Your task to perform on an android device: Open the Play Movies app and select the watchlist tab. Image 0: 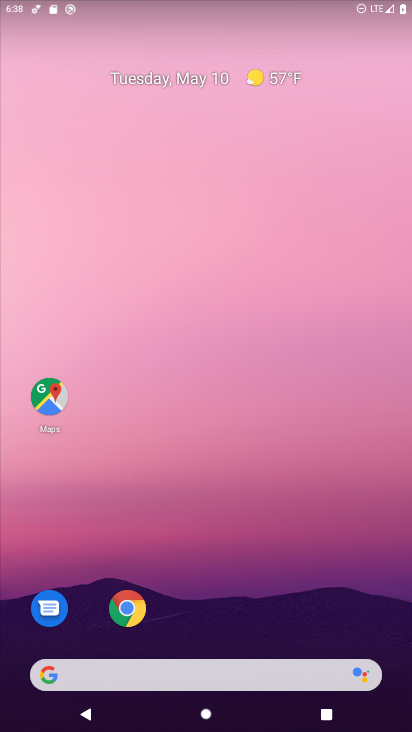
Step 0: drag from (346, 596) to (199, 36)
Your task to perform on an android device: Open the Play Movies app and select the watchlist tab. Image 1: 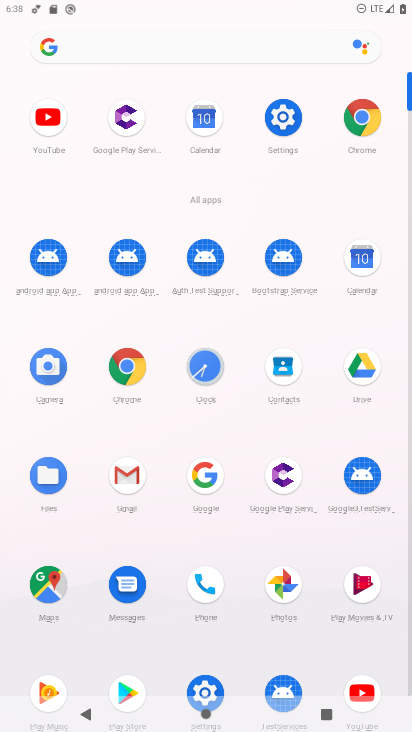
Step 1: click (360, 591)
Your task to perform on an android device: Open the Play Movies app and select the watchlist tab. Image 2: 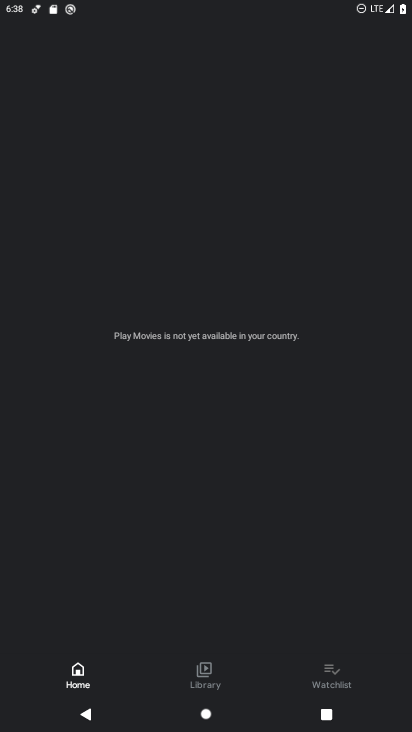
Step 2: click (330, 664)
Your task to perform on an android device: Open the Play Movies app and select the watchlist tab. Image 3: 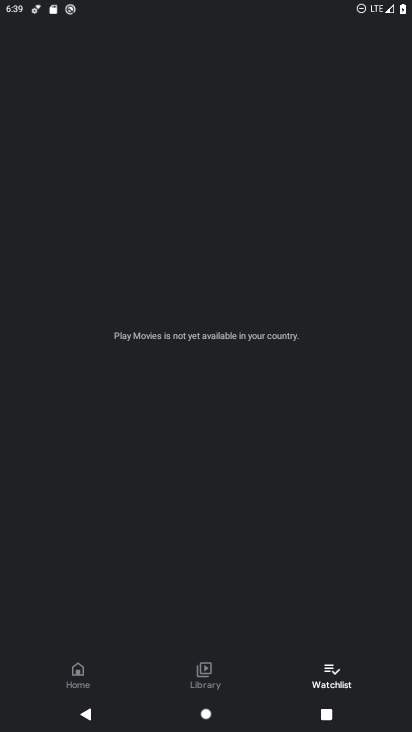
Step 3: task complete